Your task to perform on an android device: allow cookies in the chrome app Image 0: 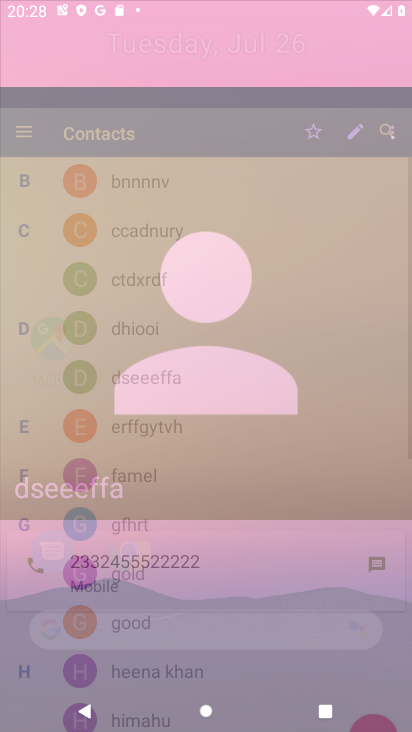
Step 0: press home button
Your task to perform on an android device: allow cookies in the chrome app Image 1: 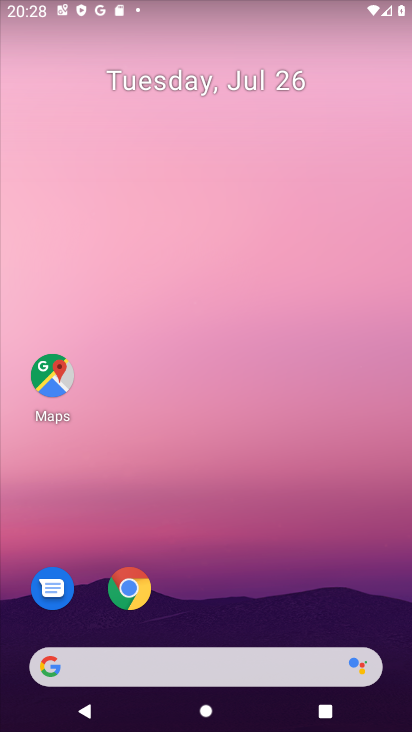
Step 1: click (123, 583)
Your task to perform on an android device: allow cookies in the chrome app Image 2: 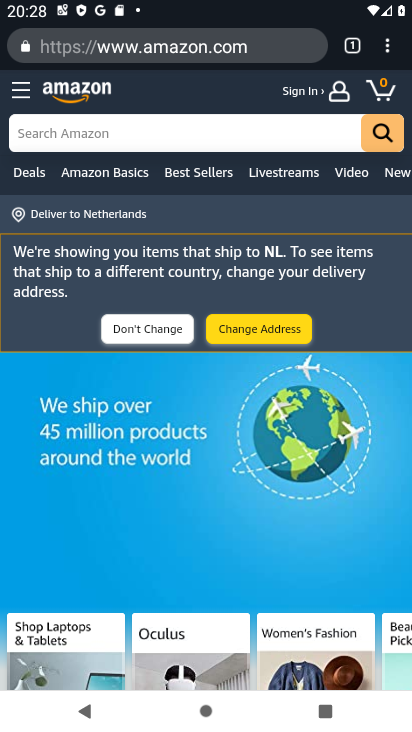
Step 2: drag from (387, 46) to (263, 553)
Your task to perform on an android device: allow cookies in the chrome app Image 3: 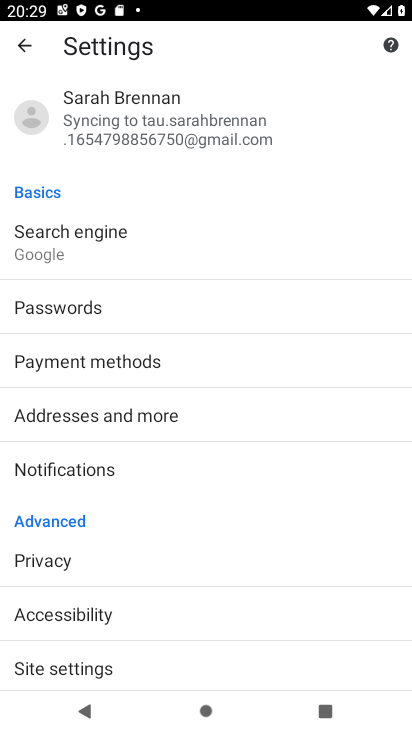
Step 3: click (68, 657)
Your task to perform on an android device: allow cookies in the chrome app Image 4: 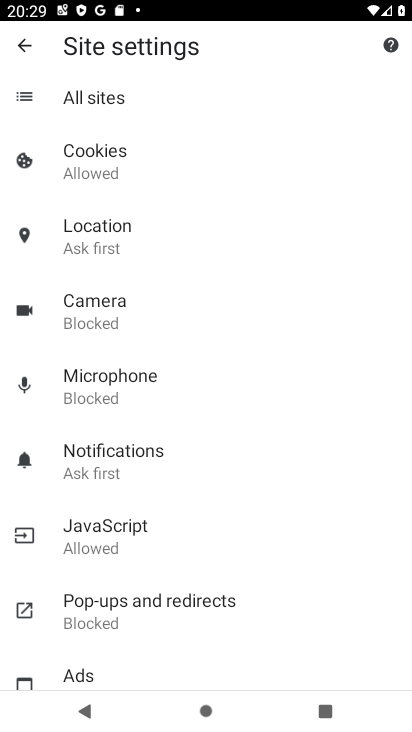
Step 4: click (103, 154)
Your task to perform on an android device: allow cookies in the chrome app Image 5: 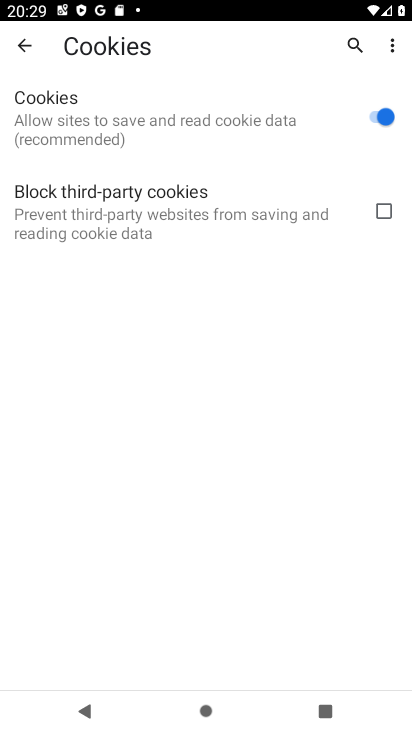
Step 5: task complete